Your task to perform on an android device: Go to sound settings Image 0: 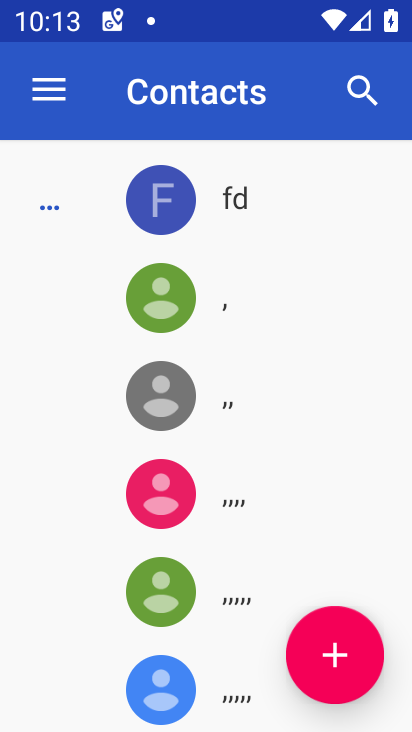
Step 0: press home button
Your task to perform on an android device: Go to sound settings Image 1: 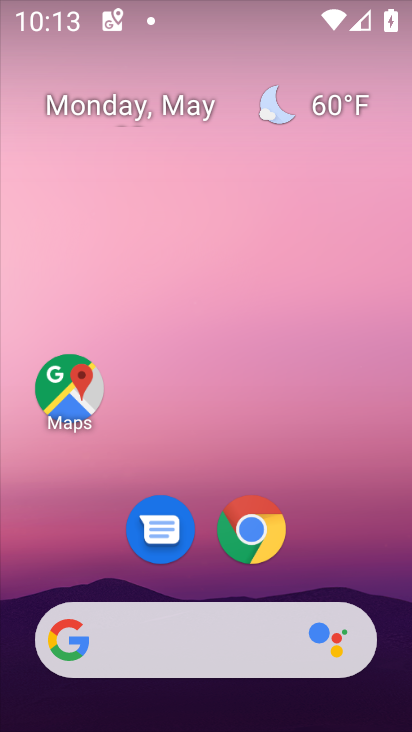
Step 1: drag from (284, 576) to (278, 83)
Your task to perform on an android device: Go to sound settings Image 2: 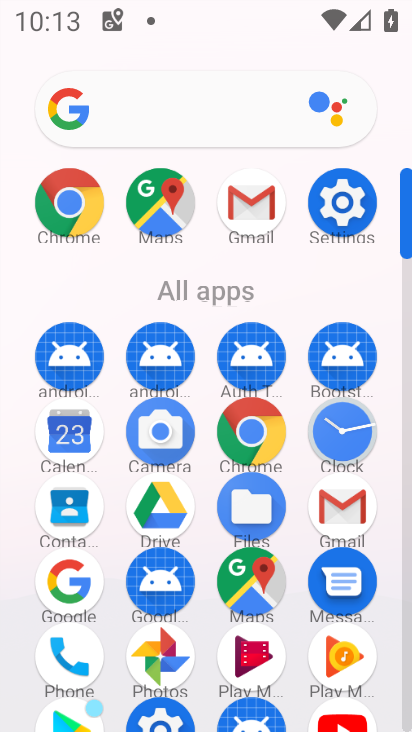
Step 2: click (348, 200)
Your task to perform on an android device: Go to sound settings Image 3: 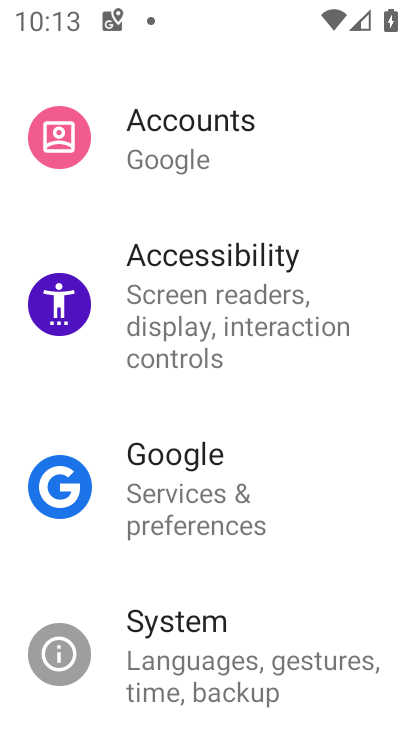
Step 3: drag from (226, 200) to (214, 617)
Your task to perform on an android device: Go to sound settings Image 4: 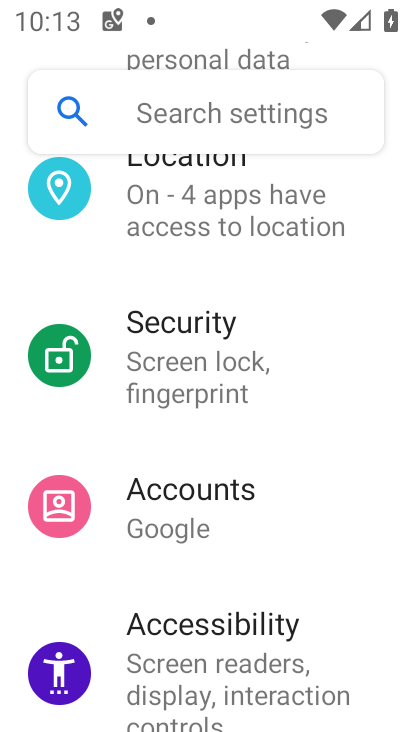
Step 4: drag from (193, 300) to (171, 641)
Your task to perform on an android device: Go to sound settings Image 5: 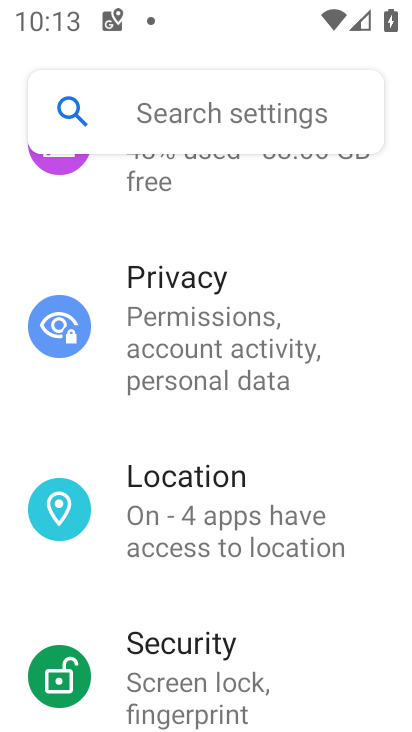
Step 5: drag from (207, 353) to (222, 676)
Your task to perform on an android device: Go to sound settings Image 6: 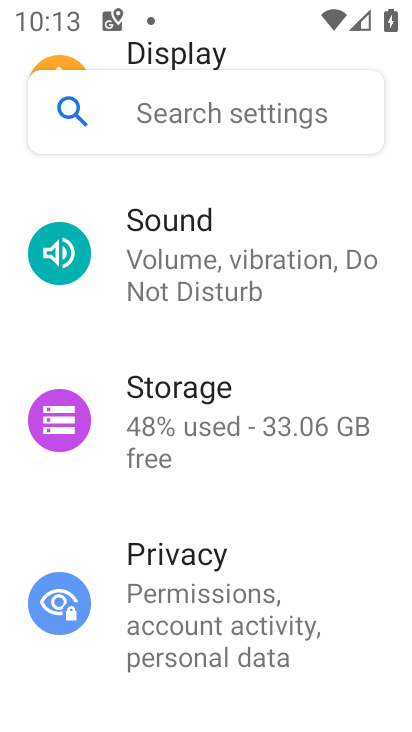
Step 6: click (193, 262)
Your task to perform on an android device: Go to sound settings Image 7: 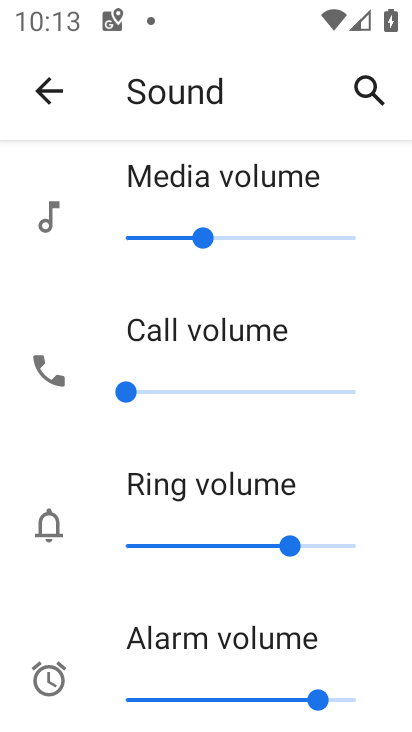
Step 7: task complete